Your task to perform on an android device: turn off airplane mode Image 0: 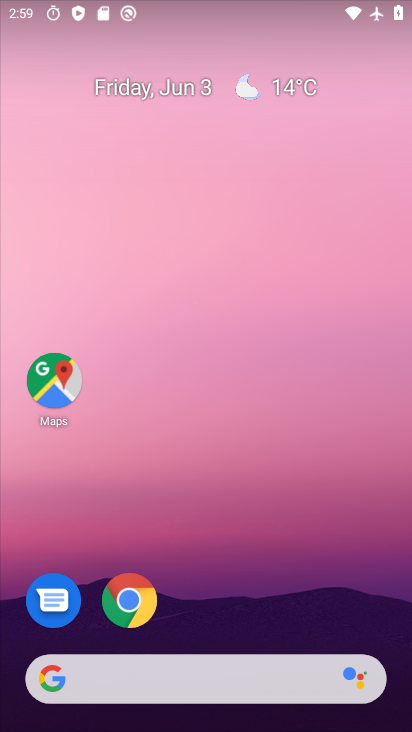
Step 0: drag from (230, 393) to (211, 37)
Your task to perform on an android device: turn off airplane mode Image 1: 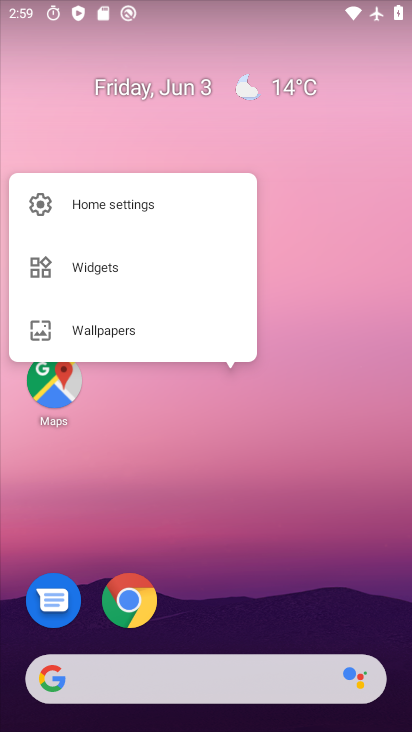
Step 1: click (279, 403)
Your task to perform on an android device: turn off airplane mode Image 2: 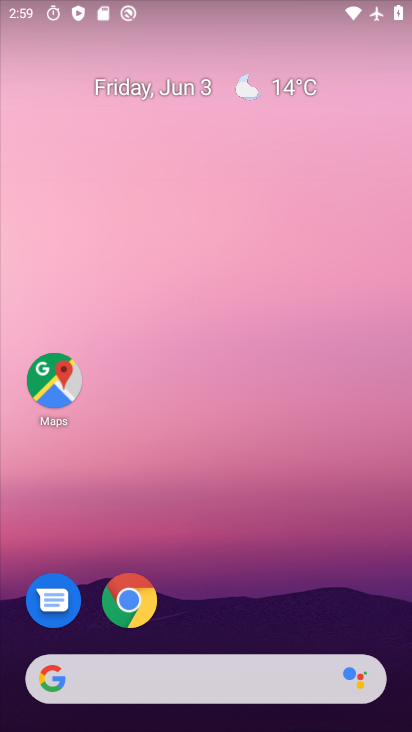
Step 2: drag from (252, 556) to (188, 11)
Your task to perform on an android device: turn off airplane mode Image 3: 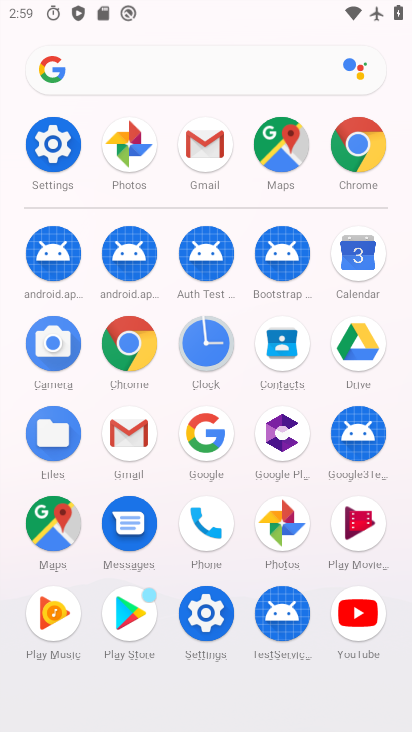
Step 3: click (53, 142)
Your task to perform on an android device: turn off airplane mode Image 4: 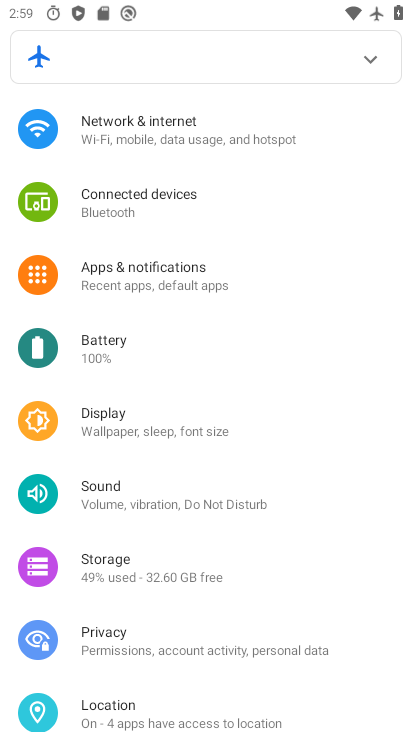
Step 4: drag from (302, 435) to (314, 532)
Your task to perform on an android device: turn off airplane mode Image 5: 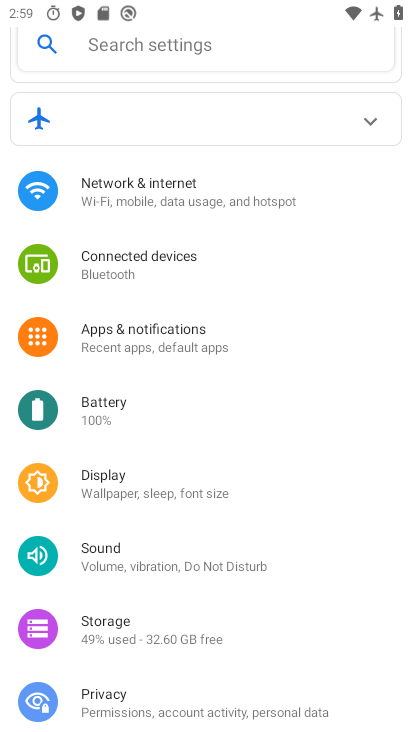
Step 5: click (211, 202)
Your task to perform on an android device: turn off airplane mode Image 6: 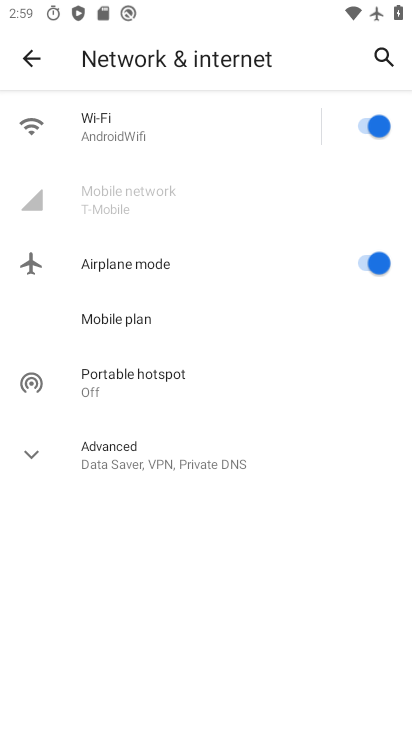
Step 6: click (17, 459)
Your task to perform on an android device: turn off airplane mode Image 7: 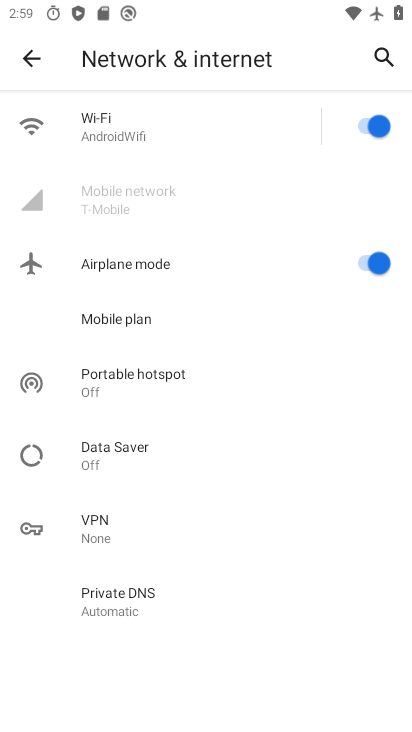
Step 7: click (360, 254)
Your task to perform on an android device: turn off airplane mode Image 8: 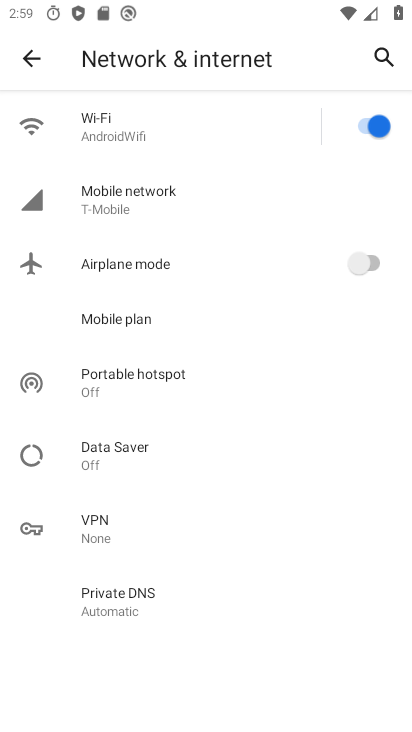
Step 8: task complete